Your task to perform on an android device: Do I have any events this weekend? Image 0: 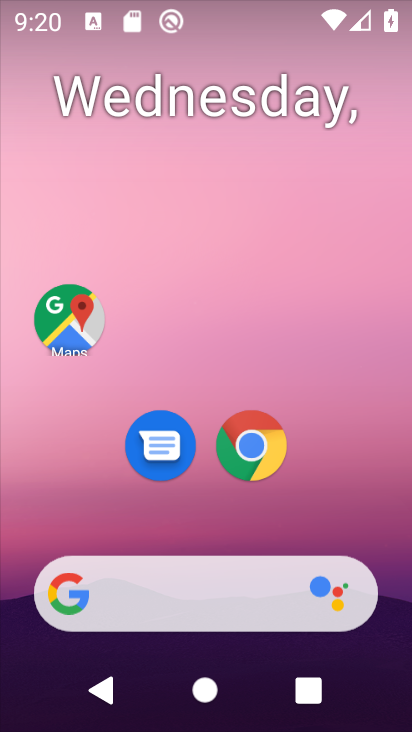
Step 0: drag from (382, 468) to (373, 4)
Your task to perform on an android device: Do I have any events this weekend? Image 1: 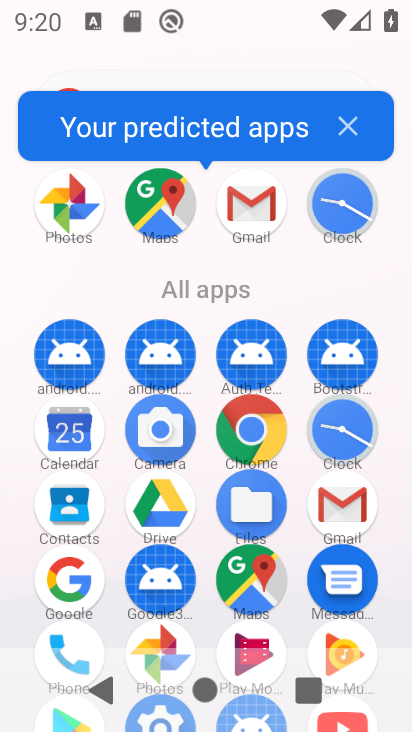
Step 1: click (63, 440)
Your task to perform on an android device: Do I have any events this weekend? Image 2: 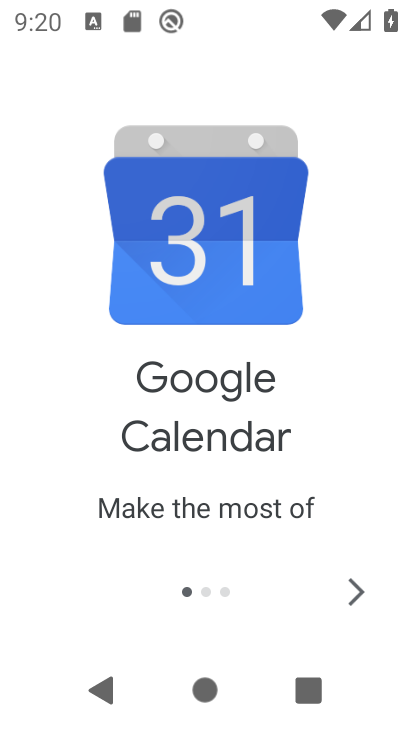
Step 2: click (350, 605)
Your task to perform on an android device: Do I have any events this weekend? Image 3: 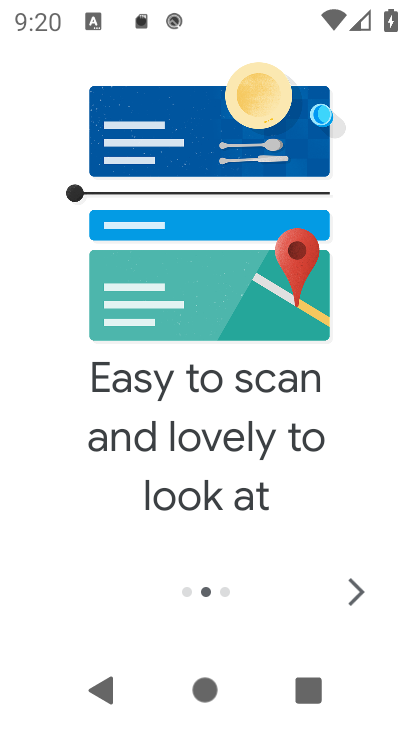
Step 3: click (350, 604)
Your task to perform on an android device: Do I have any events this weekend? Image 4: 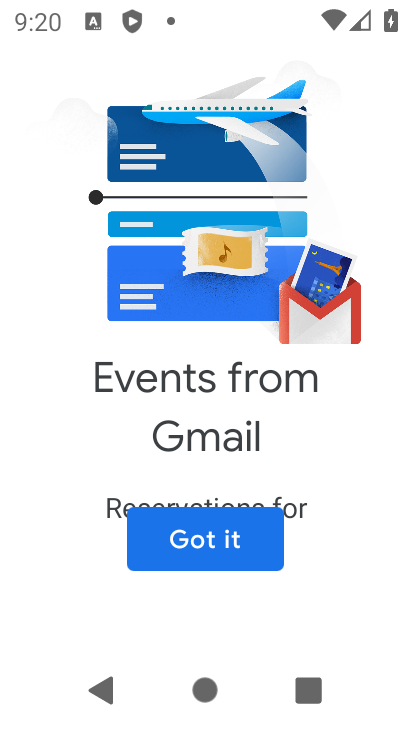
Step 4: click (228, 543)
Your task to perform on an android device: Do I have any events this weekend? Image 5: 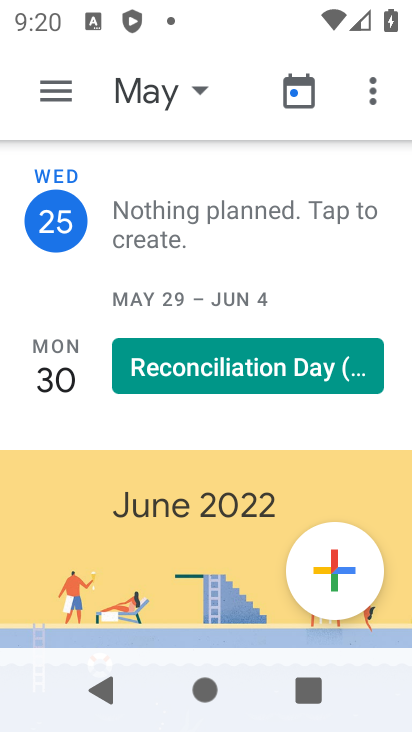
Step 5: click (161, 99)
Your task to perform on an android device: Do I have any events this weekend? Image 6: 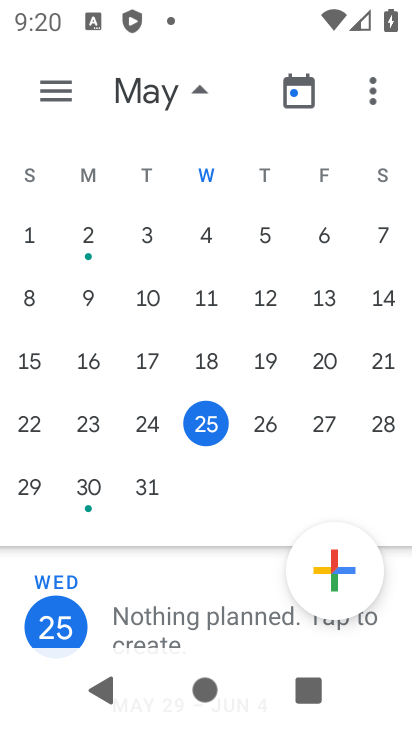
Step 6: click (74, 496)
Your task to perform on an android device: Do I have any events this weekend? Image 7: 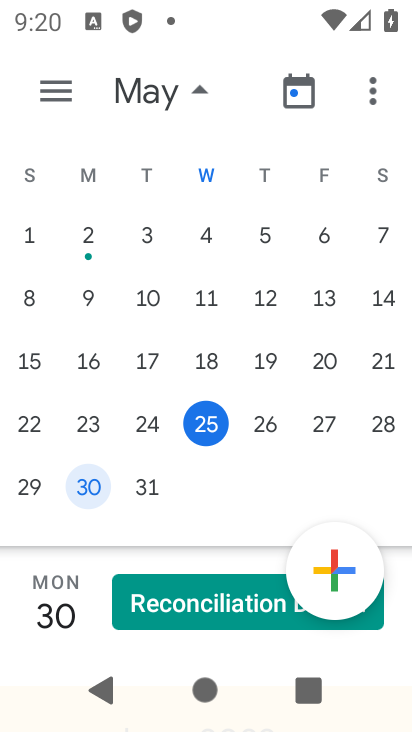
Step 7: task complete